Your task to perform on an android device: open wifi settings Image 0: 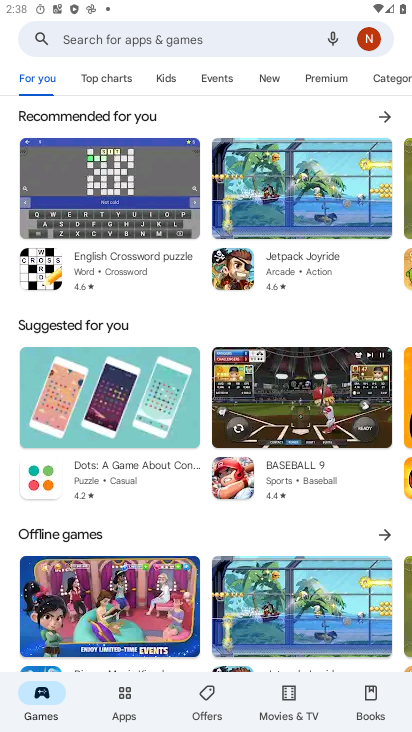
Step 0: press home button
Your task to perform on an android device: open wifi settings Image 1: 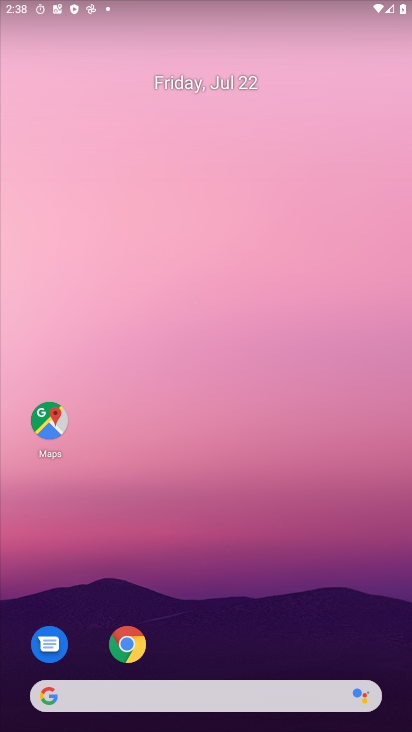
Step 1: drag from (179, 674) to (313, 157)
Your task to perform on an android device: open wifi settings Image 2: 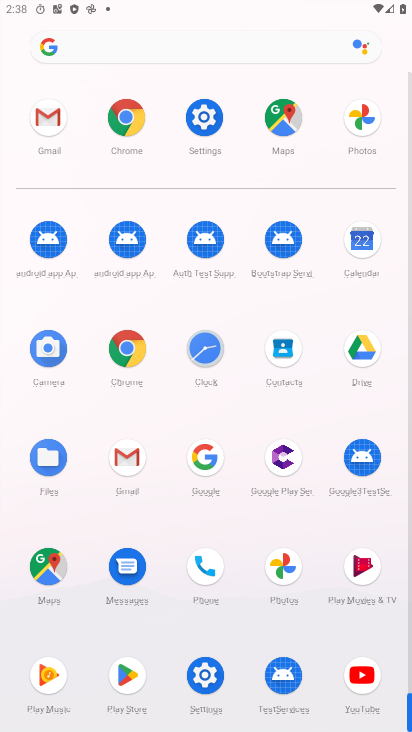
Step 2: click (224, 136)
Your task to perform on an android device: open wifi settings Image 3: 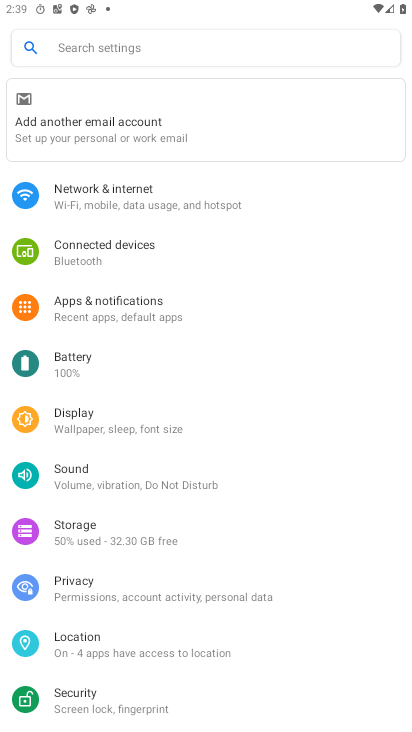
Step 3: click (183, 205)
Your task to perform on an android device: open wifi settings Image 4: 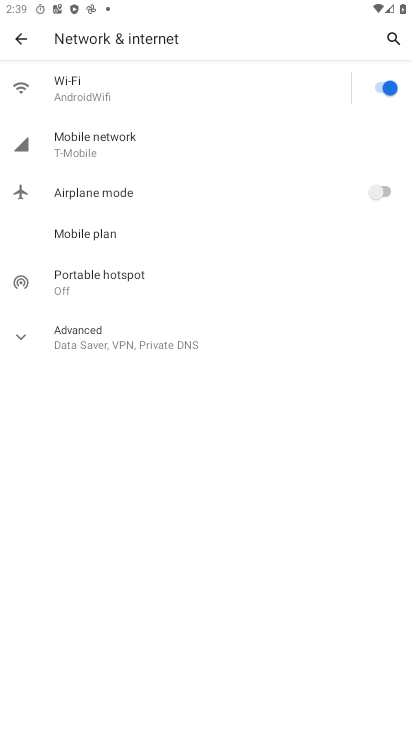
Step 4: task complete